Your task to perform on an android device: Open notification settings Image 0: 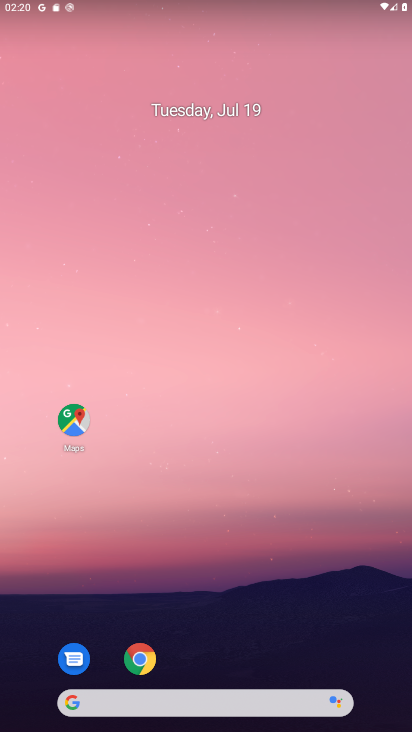
Step 0: drag from (240, 652) to (241, 223)
Your task to perform on an android device: Open notification settings Image 1: 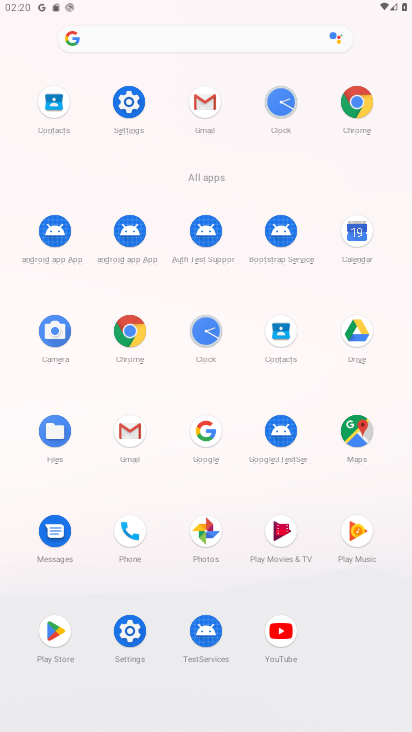
Step 1: click (128, 105)
Your task to perform on an android device: Open notification settings Image 2: 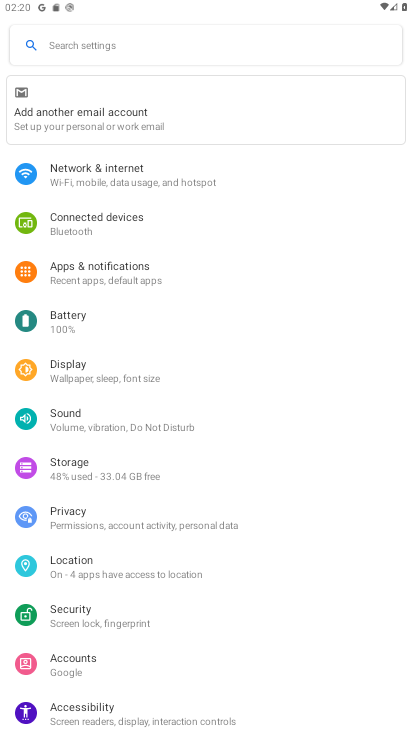
Step 2: click (103, 268)
Your task to perform on an android device: Open notification settings Image 3: 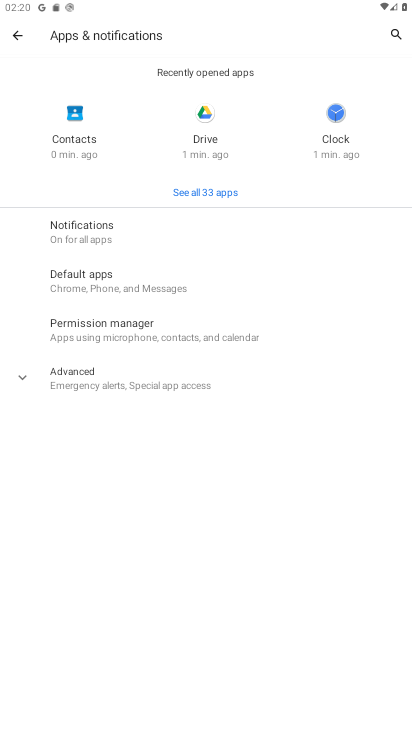
Step 3: click (89, 357)
Your task to perform on an android device: Open notification settings Image 4: 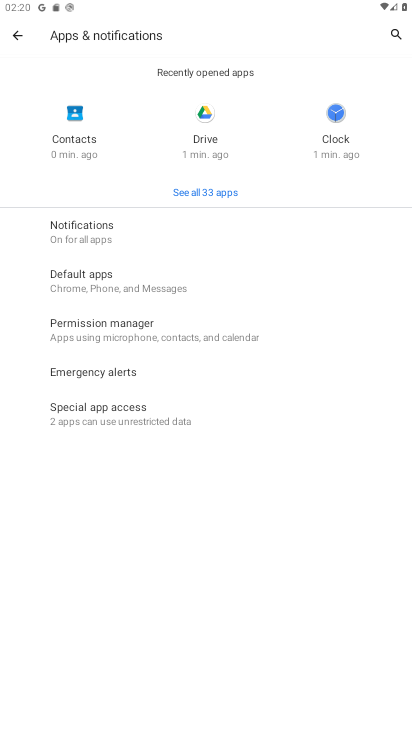
Step 4: task complete